Your task to perform on an android device: Empty the shopping cart on walmart. Image 0: 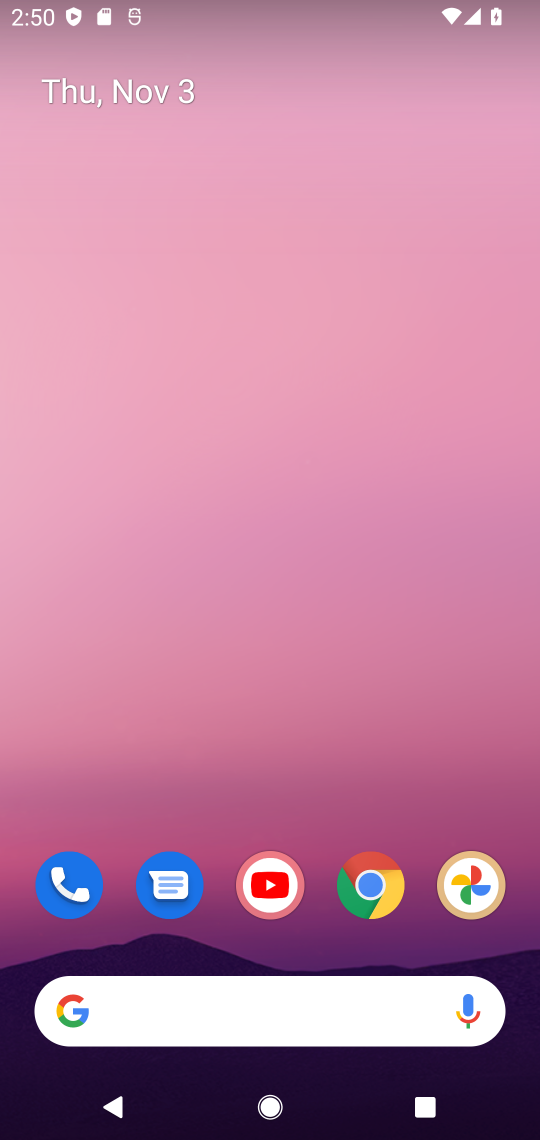
Step 0: click (290, 1031)
Your task to perform on an android device: Empty the shopping cart on walmart. Image 1: 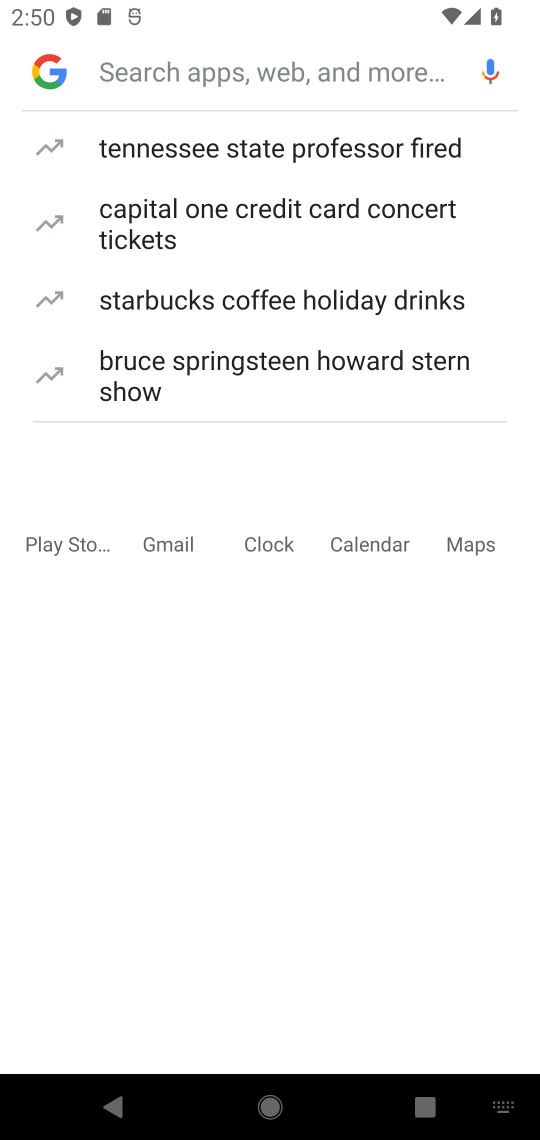
Step 1: press home button
Your task to perform on an android device: Empty the shopping cart on walmart. Image 2: 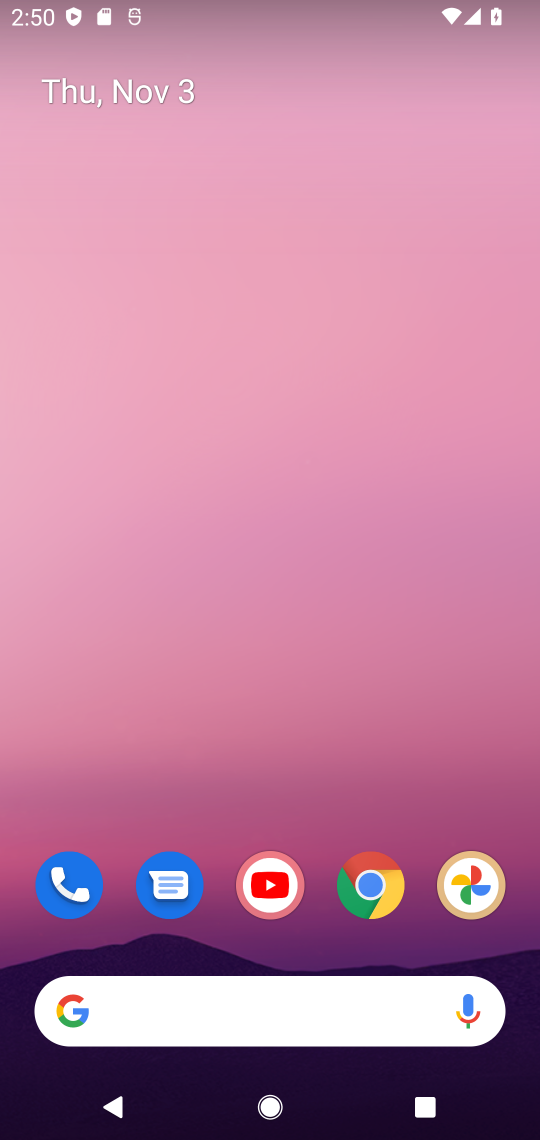
Step 2: click (374, 888)
Your task to perform on an android device: Empty the shopping cart on walmart. Image 3: 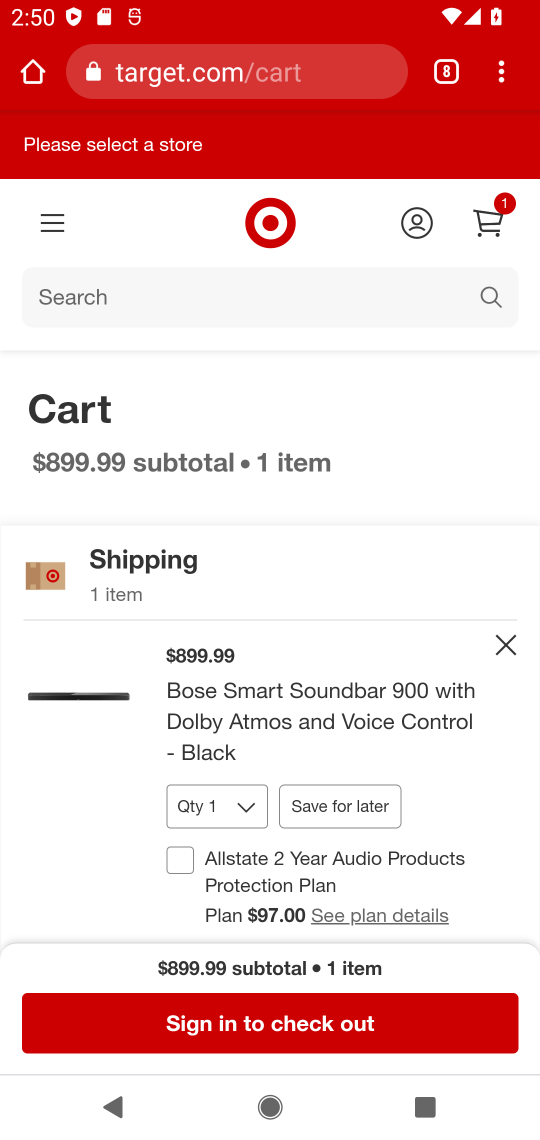
Step 3: drag from (498, 75) to (283, 241)
Your task to perform on an android device: Empty the shopping cart on walmart. Image 4: 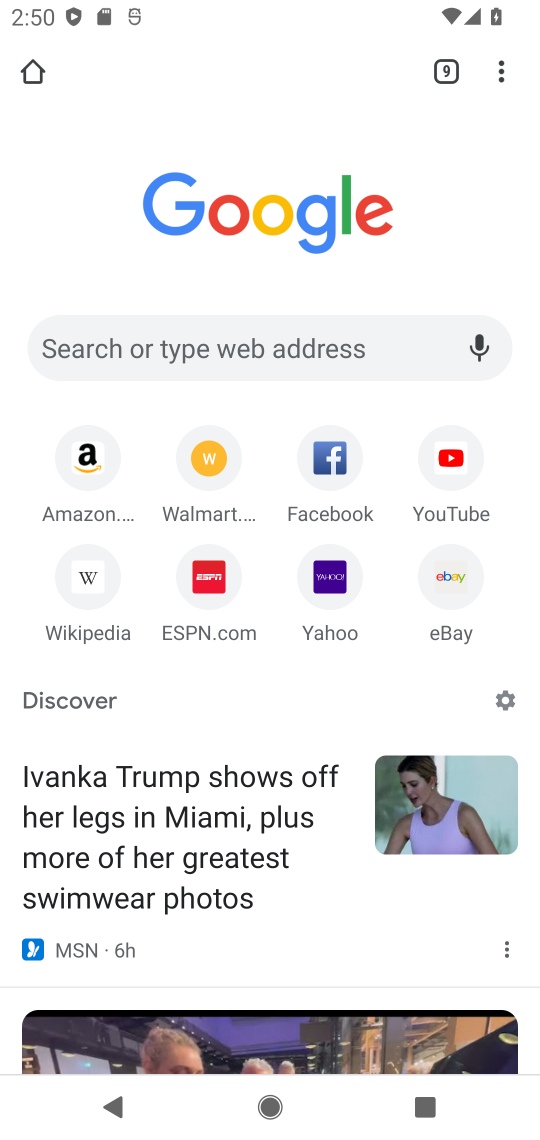
Step 4: click (352, 335)
Your task to perform on an android device: Empty the shopping cart on walmart. Image 5: 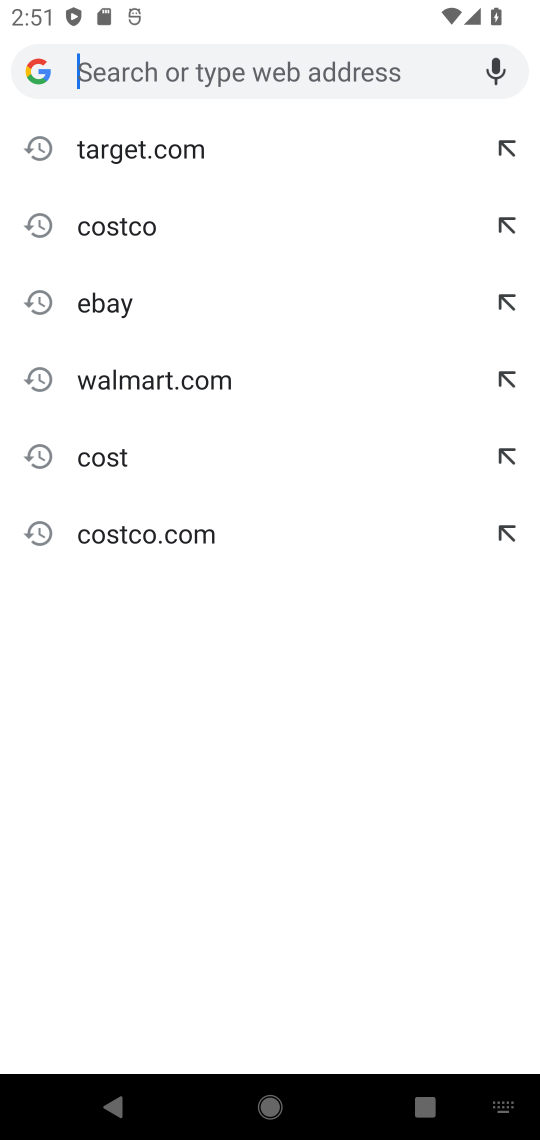
Step 5: type "walmart"
Your task to perform on an android device: Empty the shopping cart on walmart. Image 6: 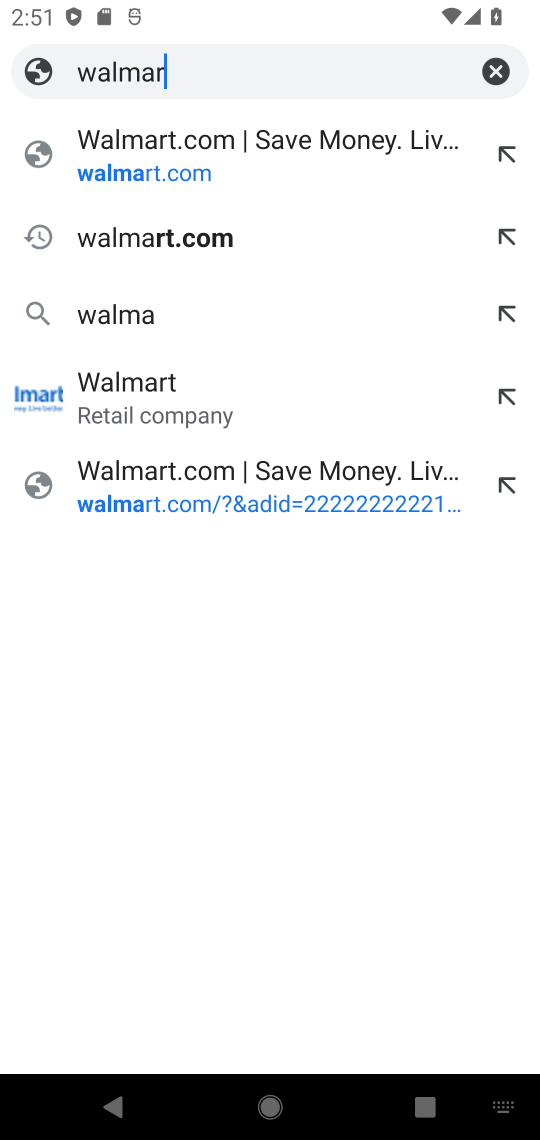
Step 6: type ""
Your task to perform on an android device: Empty the shopping cart on walmart. Image 7: 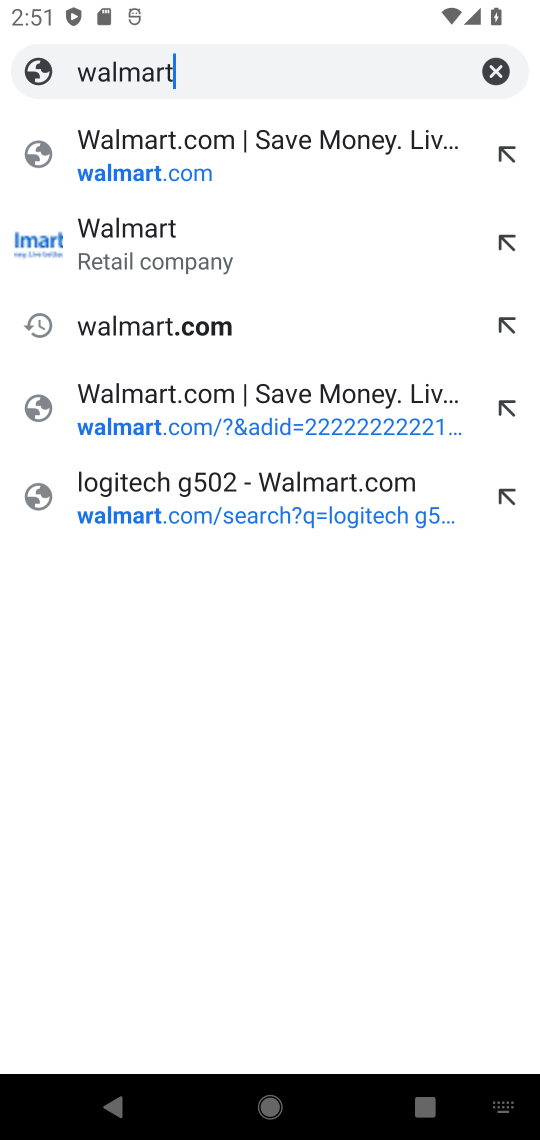
Step 7: click (132, 227)
Your task to perform on an android device: Empty the shopping cart on walmart. Image 8: 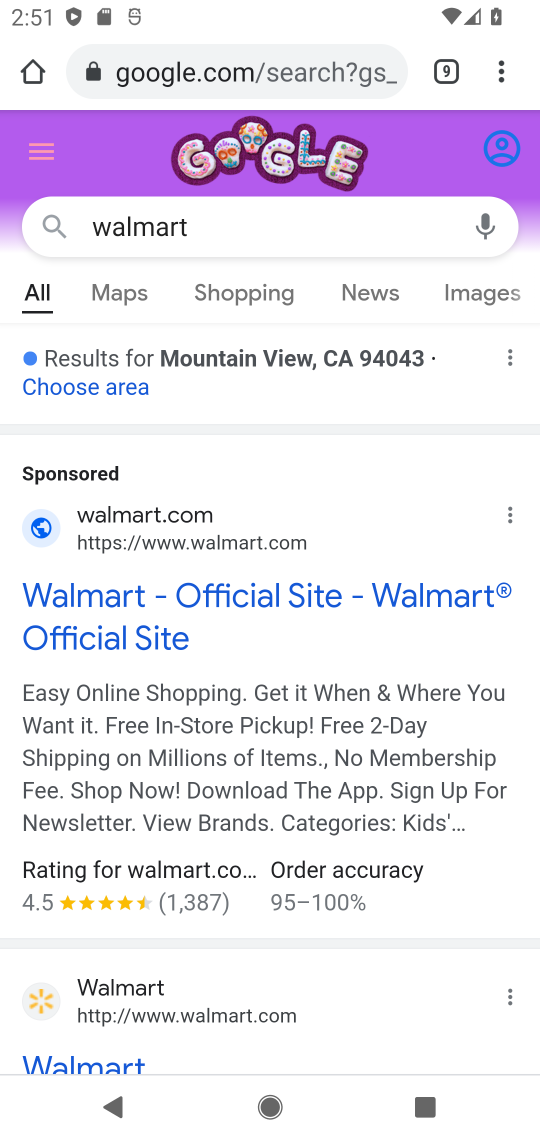
Step 8: drag from (247, 972) to (226, 595)
Your task to perform on an android device: Empty the shopping cart on walmart. Image 9: 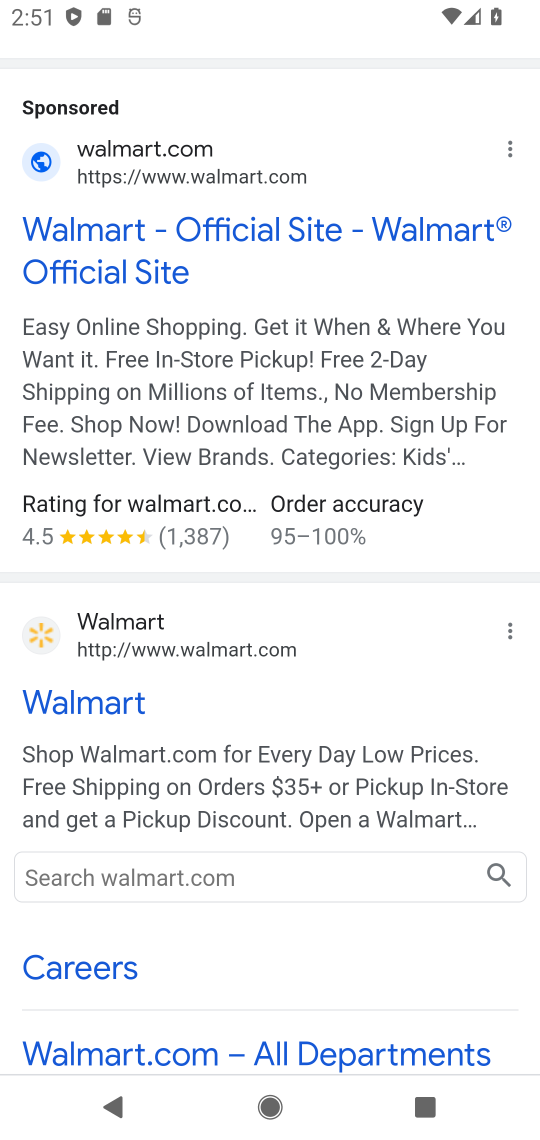
Step 9: click (96, 697)
Your task to perform on an android device: Empty the shopping cart on walmart. Image 10: 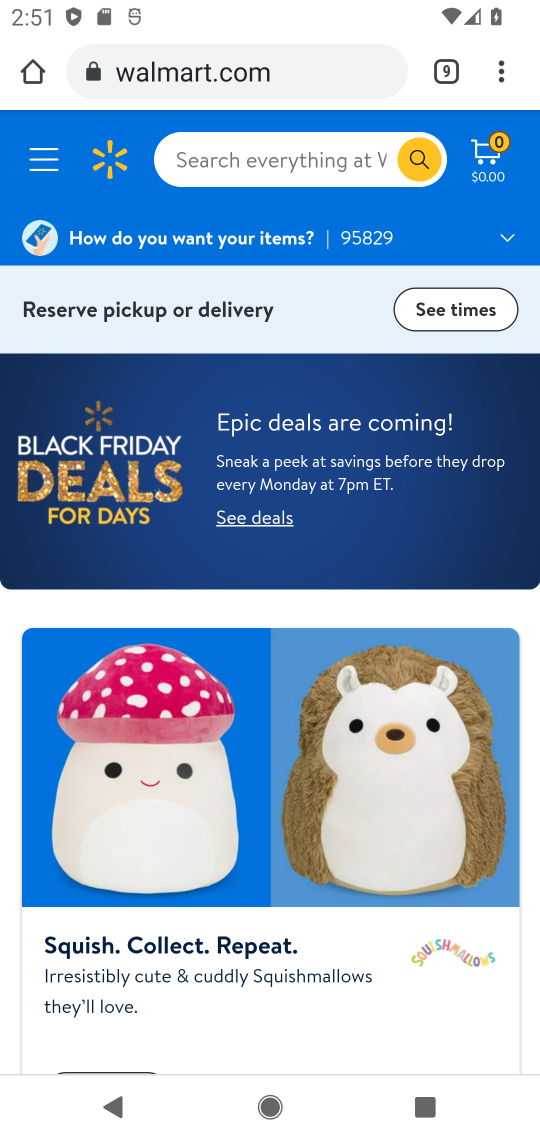
Step 10: click (482, 155)
Your task to perform on an android device: Empty the shopping cart on walmart. Image 11: 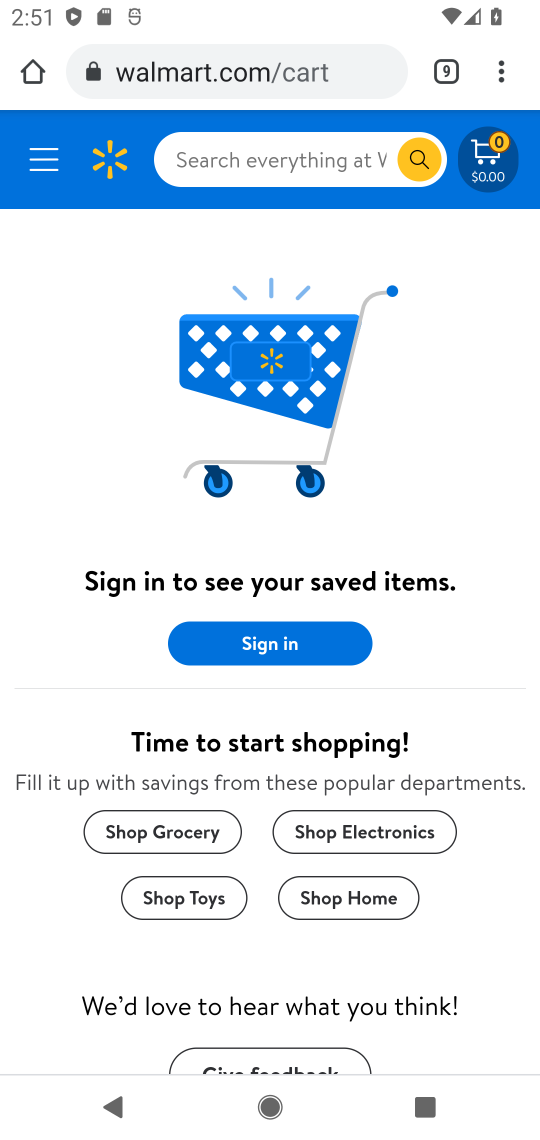
Step 11: task complete